Your task to perform on an android device: Open Google Maps and go to "Timeline" Image 0: 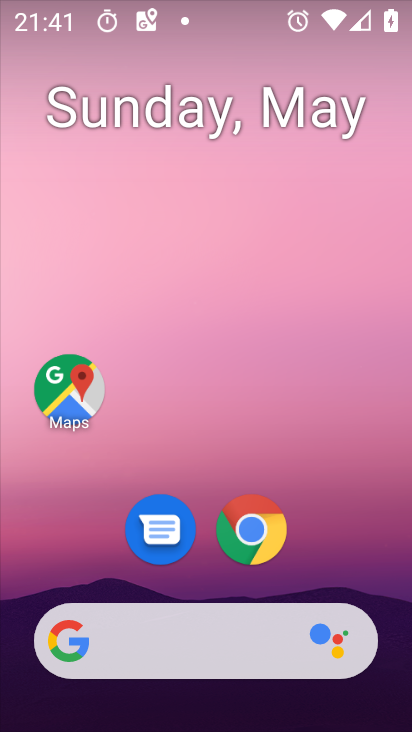
Step 0: click (64, 392)
Your task to perform on an android device: Open Google Maps and go to "Timeline" Image 1: 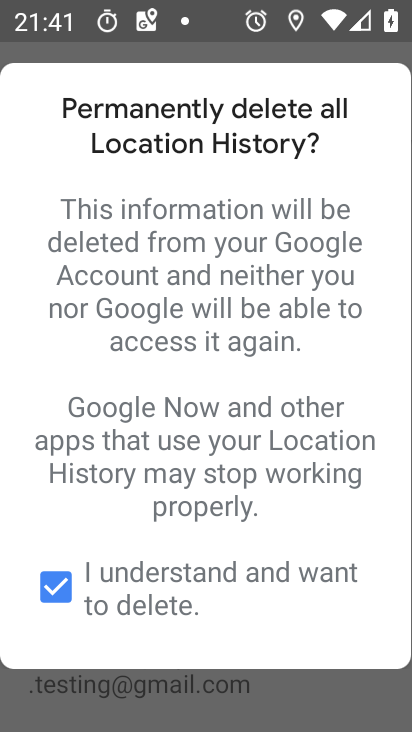
Step 1: press home button
Your task to perform on an android device: Open Google Maps and go to "Timeline" Image 2: 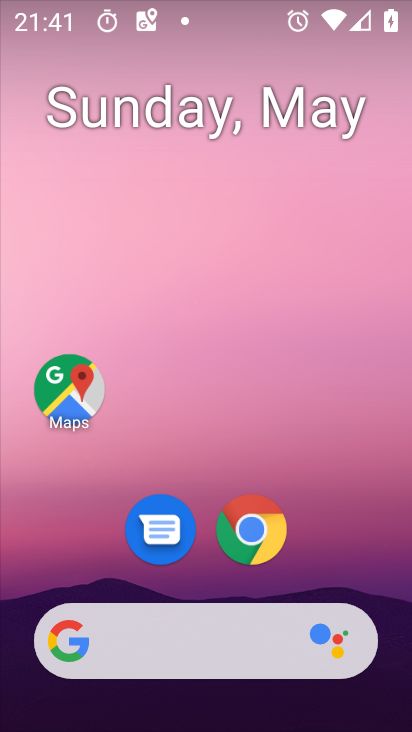
Step 2: click (72, 393)
Your task to perform on an android device: Open Google Maps and go to "Timeline" Image 3: 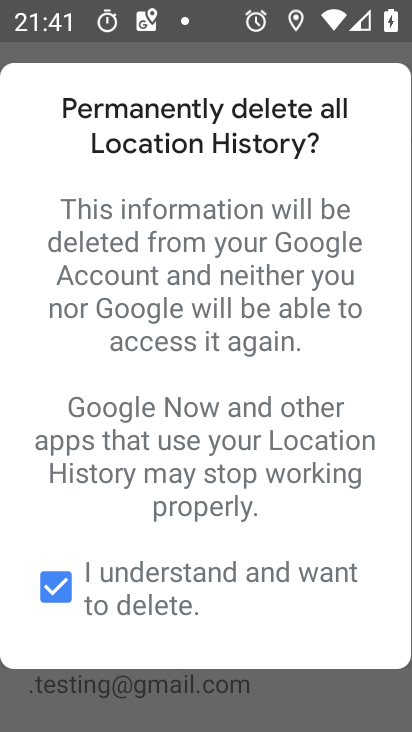
Step 3: task complete